Your task to perform on an android device: show emergency info Image 0: 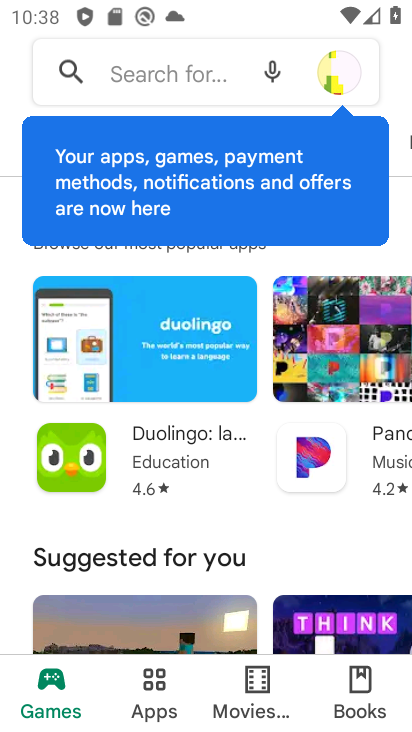
Step 0: press home button
Your task to perform on an android device: show emergency info Image 1: 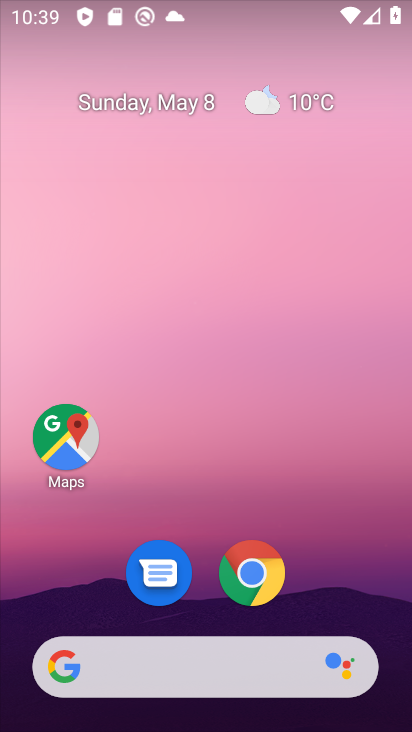
Step 1: drag from (367, 576) to (405, 37)
Your task to perform on an android device: show emergency info Image 2: 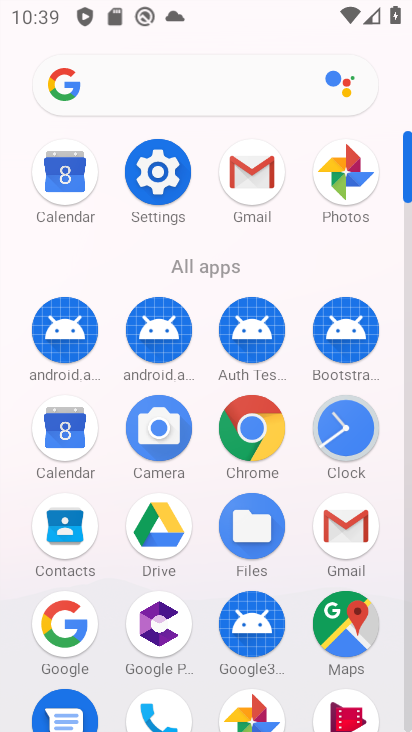
Step 2: click (160, 702)
Your task to perform on an android device: show emergency info Image 3: 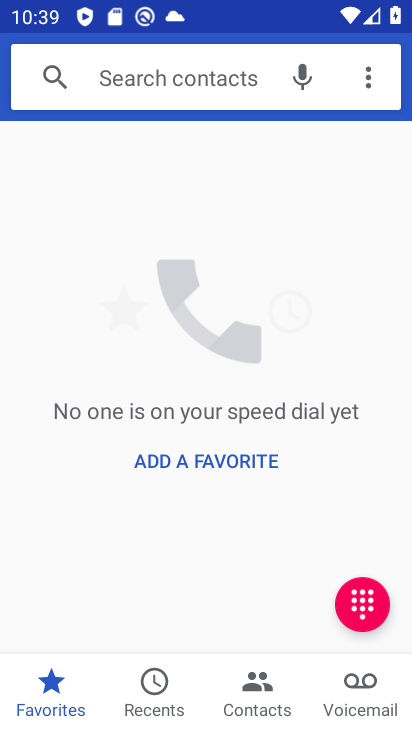
Step 3: press home button
Your task to perform on an android device: show emergency info Image 4: 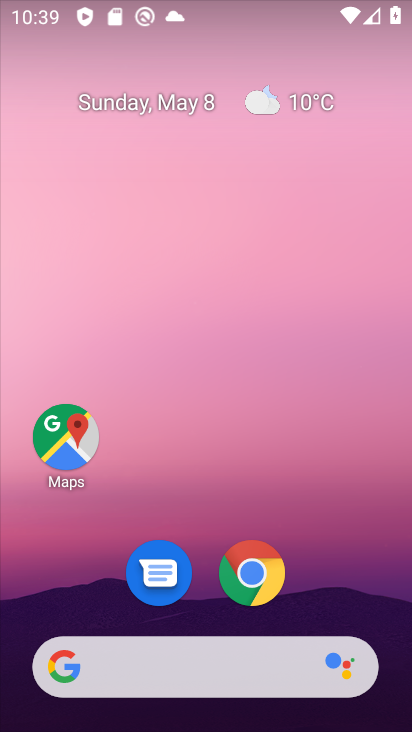
Step 4: drag from (323, 576) to (316, 102)
Your task to perform on an android device: show emergency info Image 5: 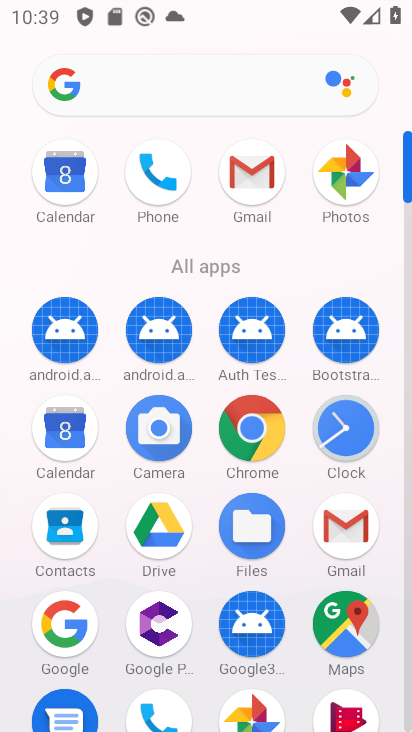
Step 5: click (409, 730)
Your task to perform on an android device: show emergency info Image 6: 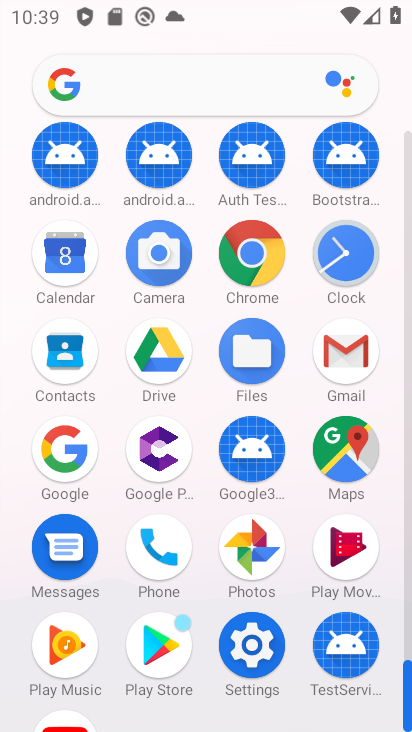
Step 6: click (248, 643)
Your task to perform on an android device: show emergency info Image 7: 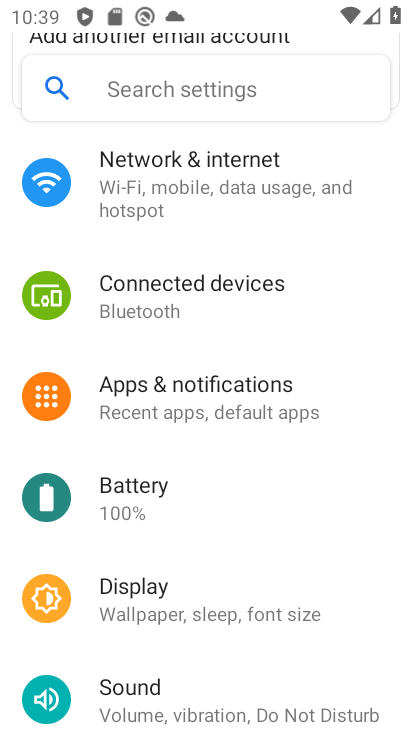
Step 7: drag from (205, 563) to (187, 190)
Your task to perform on an android device: show emergency info Image 8: 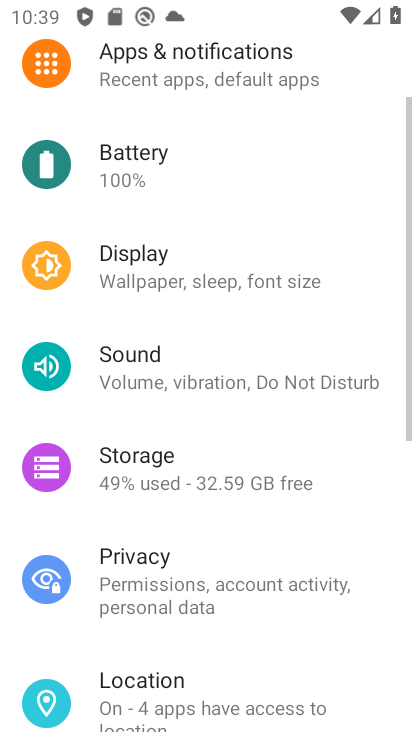
Step 8: drag from (259, 595) to (209, 232)
Your task to perform on an android device: show emergency info Image 9: 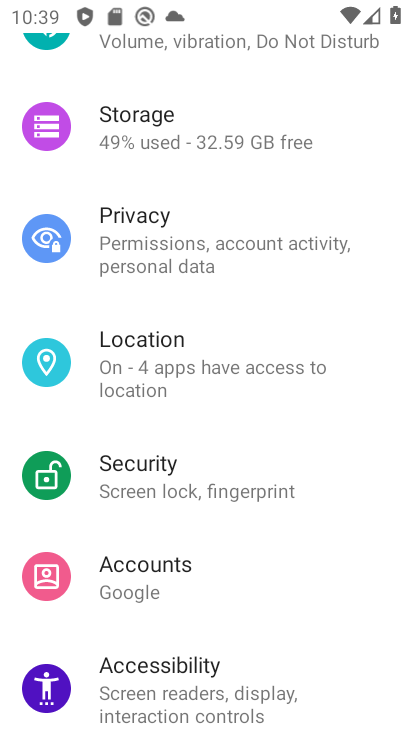
Step 9: drag from (207, 659) to (184, 383)
Your task to perform on an android device: show emergency info Image 10: 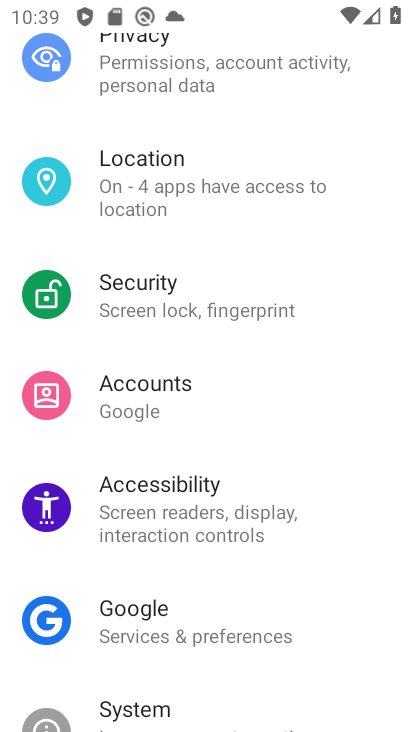
Step 10: drag from (238, 722) to (221, 265)
Your task to perform on an android device: show emergency info Image 11: 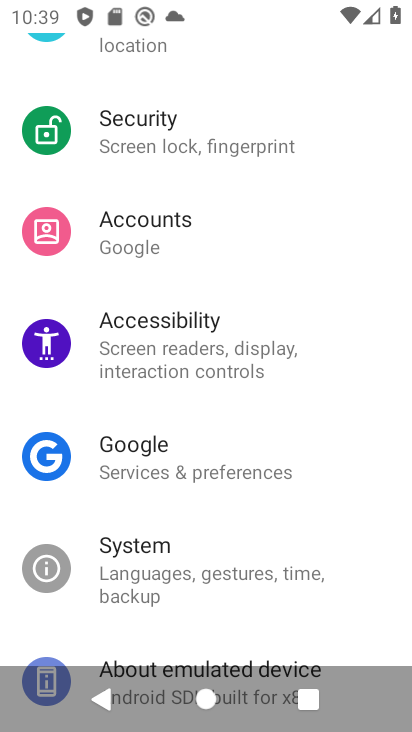
Step 11: drag from (231, 557) to (239, 255)
Your task to perform on an android device: show emergency info Image 12: 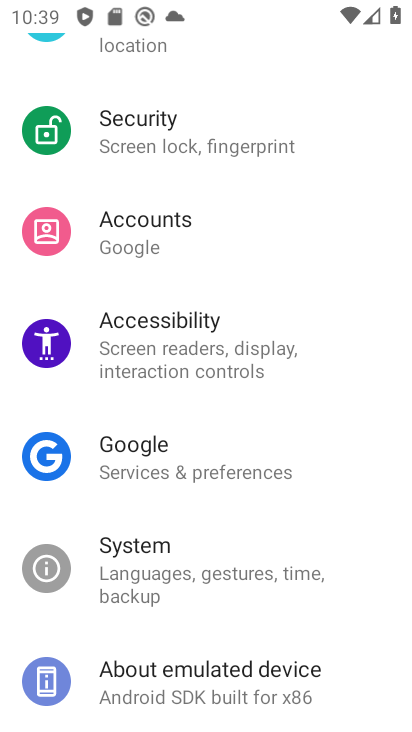
Step 12: click (274, 680)
Your task to perform on an android device: show emergency info Image 13: 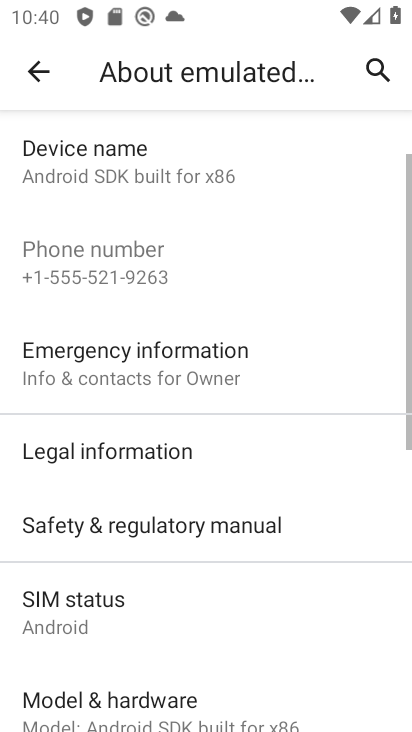
Step 13: click (195, 372)
Your task to perform on an android device: show emergency info Image 14: 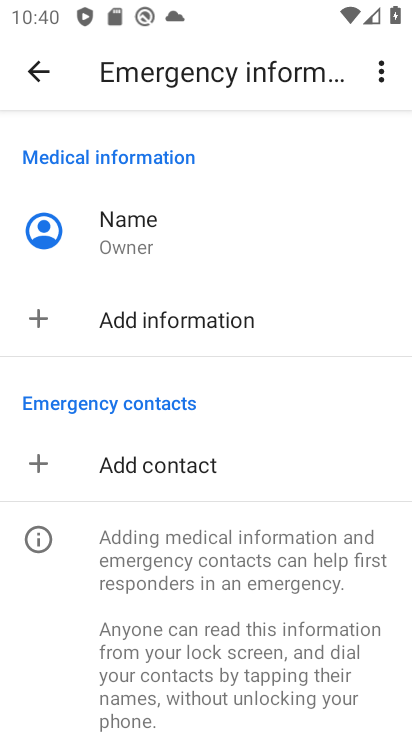
Step 14: task complete